Your task to perform on an android device: Turn on the flashlight Image 0: 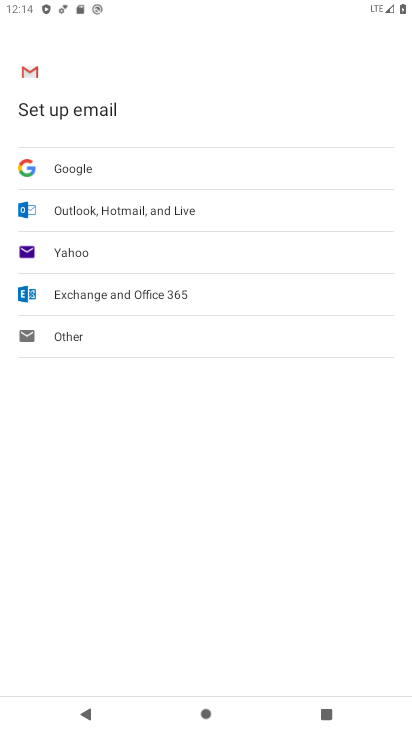
Step 0: press home button
Your task to perform on an android device: Turn on the flashlight Image 1: 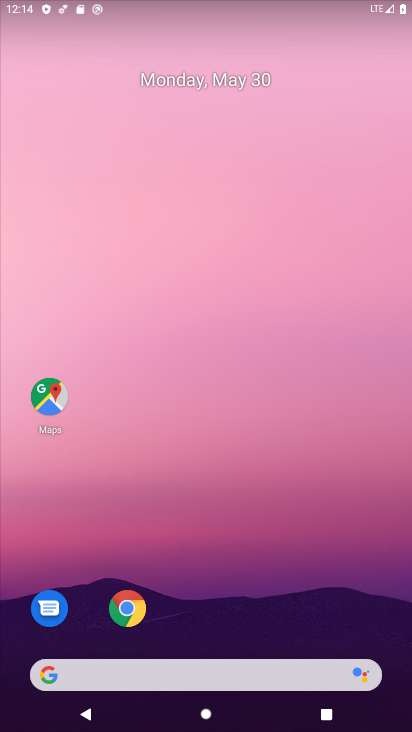
Step 1: drag from (194, 649) to (191, 145)
Your task to perform on an android device: Turn on the flashlight Image 2: 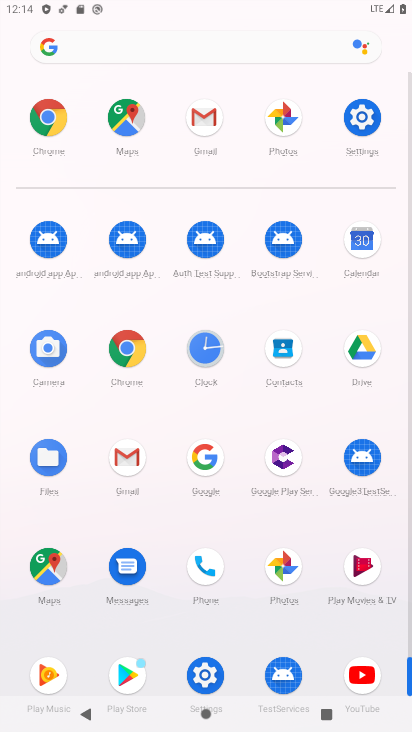
Step 2: click (368, 115)
Your task to perform on an android device: Turn on the flashlight Image 3: 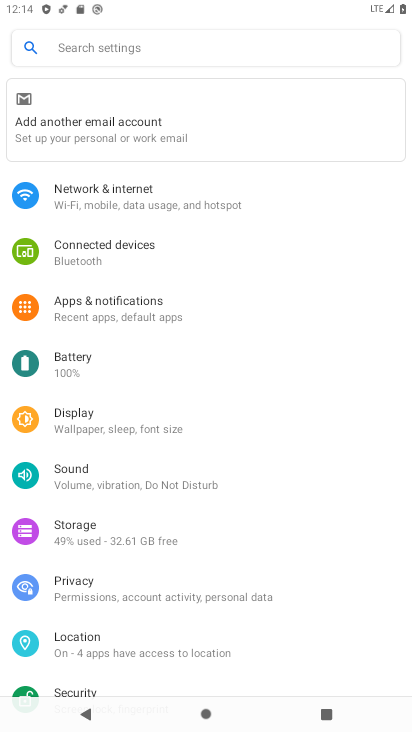
Step 3: click (191, 43)
Your task to perform on an android device: Turn on the flashlight Image 4: 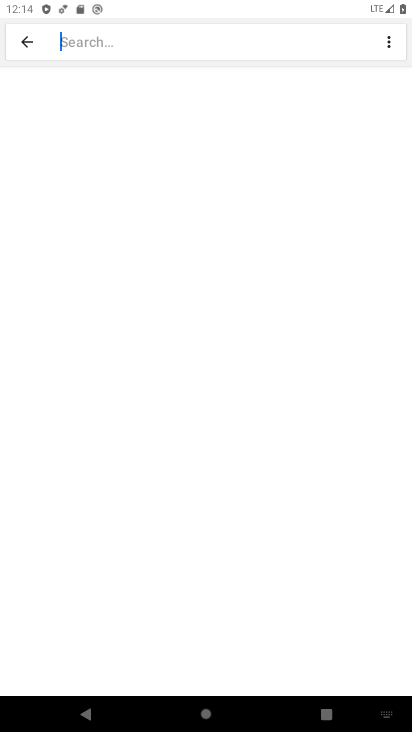
Step 4: type "flashliight"
Your task to perform on an android device: Turn on the flashlight Image 5: 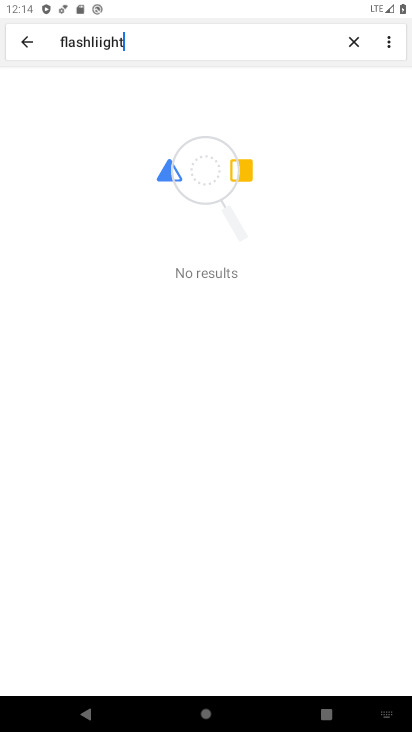
Step 5: click (101, 37)
Your task to perform on an android device: Turn on the flashlight Image 6: 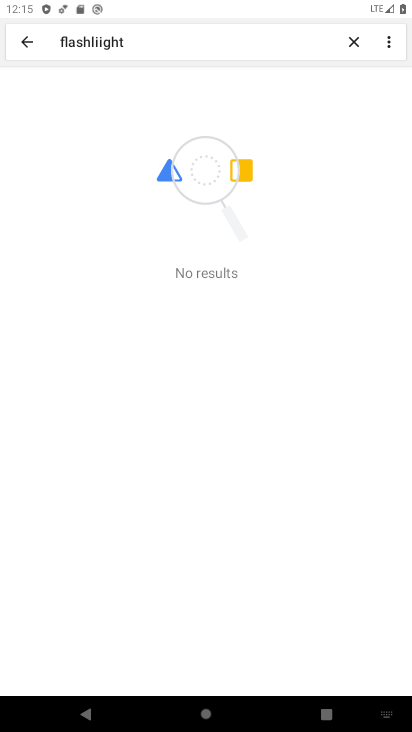
Step 6: task complete